Your task to perform on an android device: turn smart compose on in the gmail app Image 0: 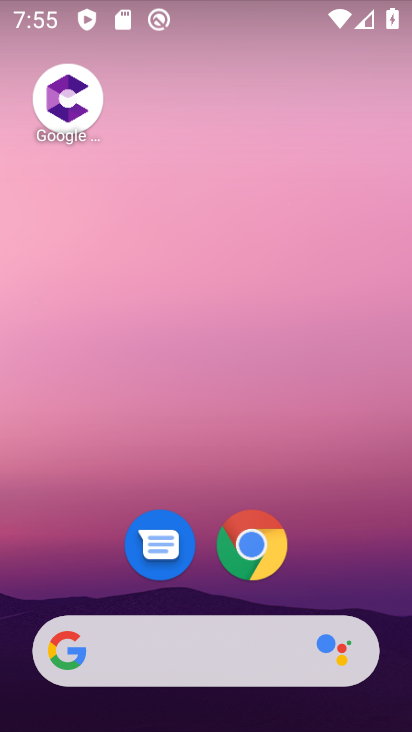
Step 0: drag from (324, 500) to (243, 84)
Your task to perform on an android device: turn smart compose on in the gmail app Image 1: 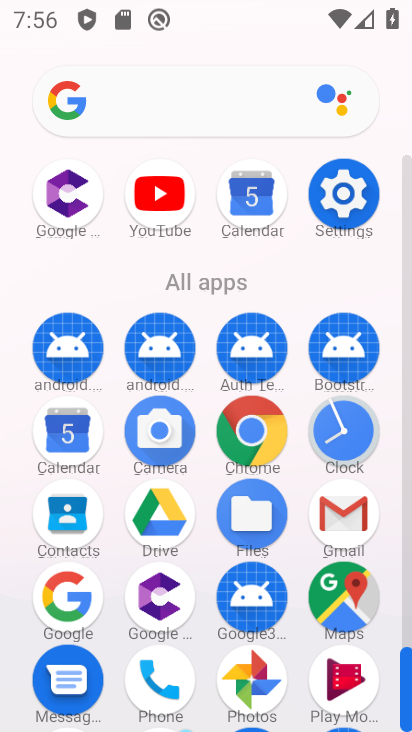
Step 1: drag from (291, 286) to (245, 95)
Your task to perform on an android device: turn smart compose on in the gmail app Image 2: 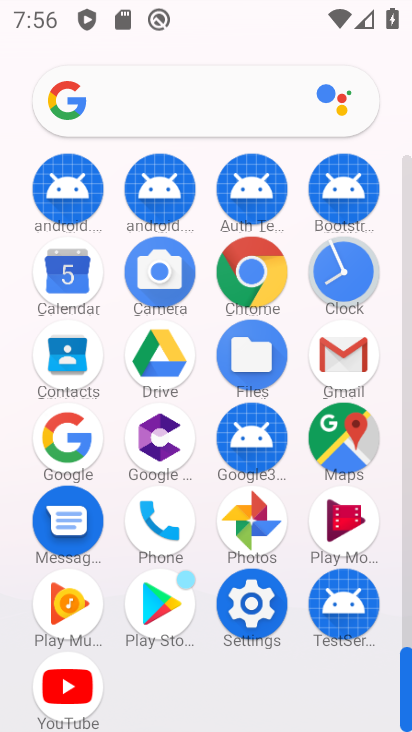
Step 2: click (345, 353)
Your task to perform on an android device: turn smart compose on in the gmail app Image 3: 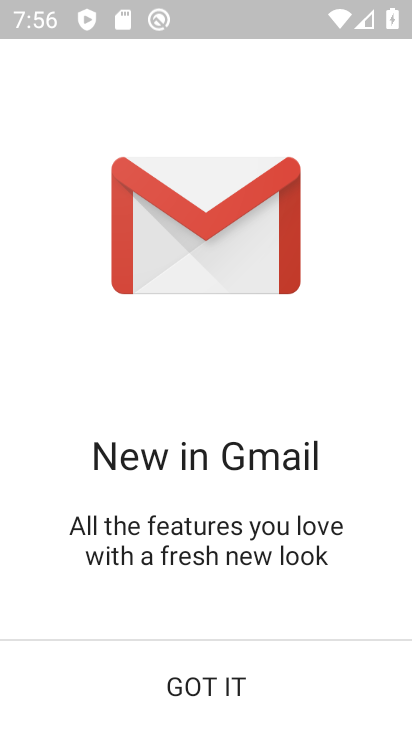
Step 3: click (217, 690)
Your task to perform on an android device: turn smart compose on in the gmail app Image 4: 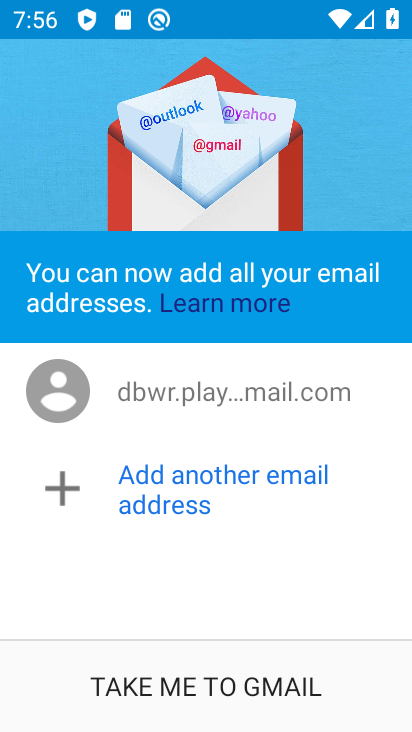
Step 4: click (234, 692)
Your task to perform on an android device: turn smart compose on in the gmail app Image 5: 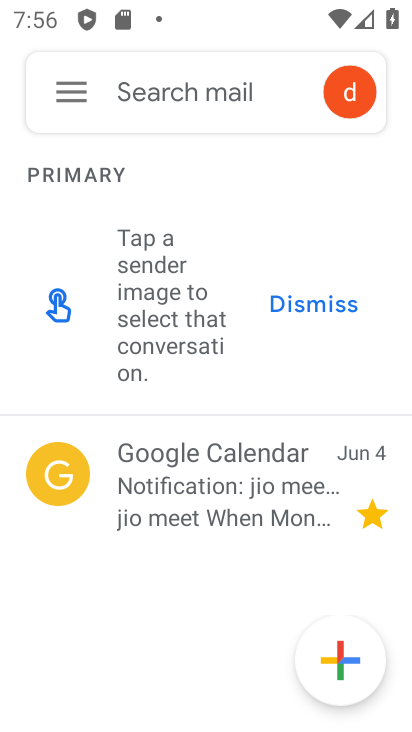
Step 5: click (79, 94)
Your task to perform on an android device: turn smart compose on in the gmail app Image 6: 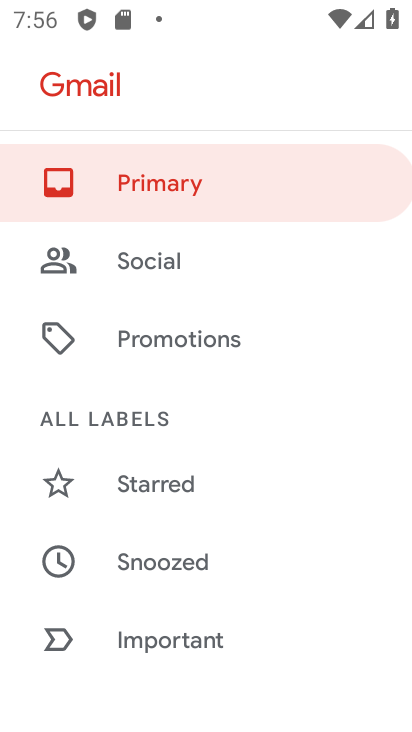
Step 6: drag from (181, 441) to (179, 286)
Your task to perform on an android device: turn smart compose on in the gmail app Image 7: 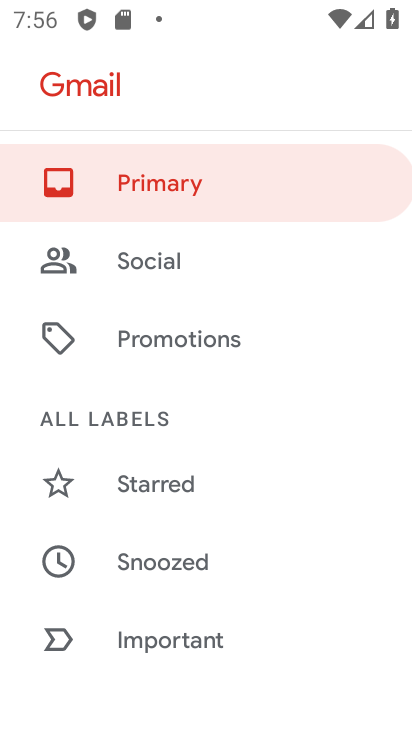
Step 7: drag from (198, 440) to (226, 329)
Your task to perform on an android device: turn smart compose on in the gmail app Image 8: 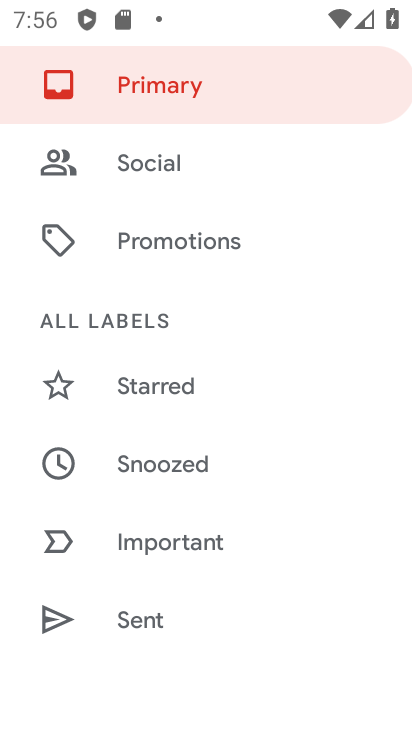
Step 8: drag from (177, 421) to (273, 311)
Your task to perform on an android device: turn smart compose on in the gmail app Image 9: 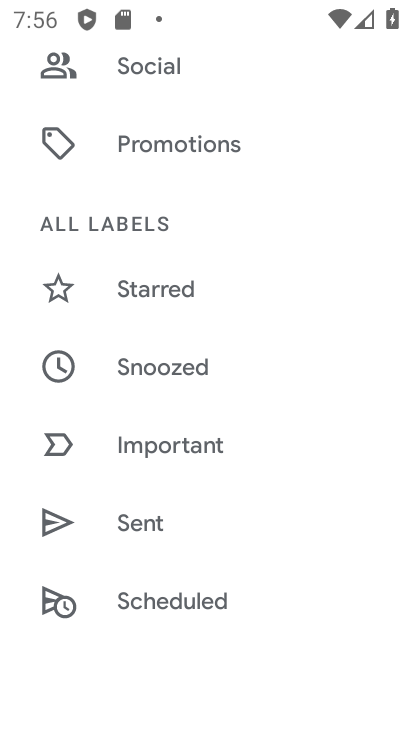
Step 9: drag from (173, 413) to (260, 320)
Your task to perform on an android device: turn smart compose on in the gmail app Image 10: 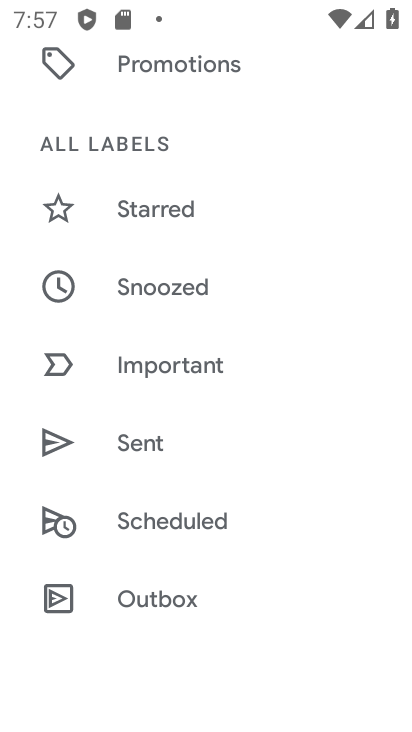
Step 10: drag from (164, 399) to (237, 304)
Your task to perform on an android device: turn smart compose on in the gmail app Image 11: 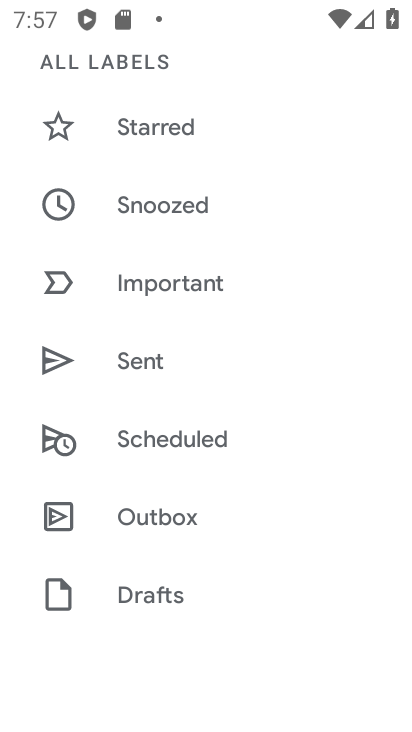
Step 11: drag from (160, 403) to (232, 310)
Your task to perform on an android device: turn smart compose on in the gmail app Image 12: 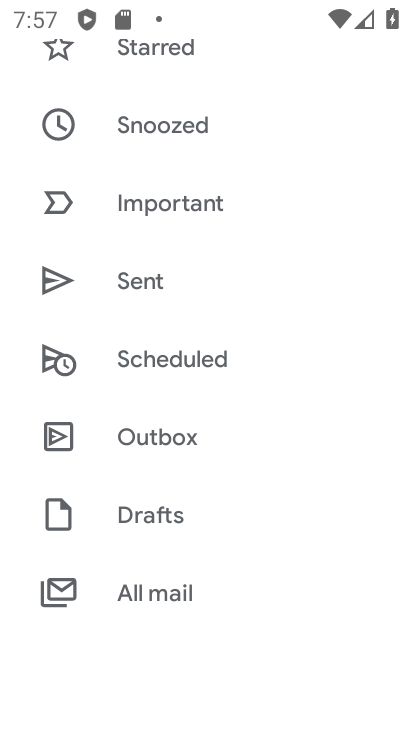
Step 12: drag from (168, 395) to (257, 296)
Your task to perform on an android device: turn smart compose on in the gmail app Image 13: 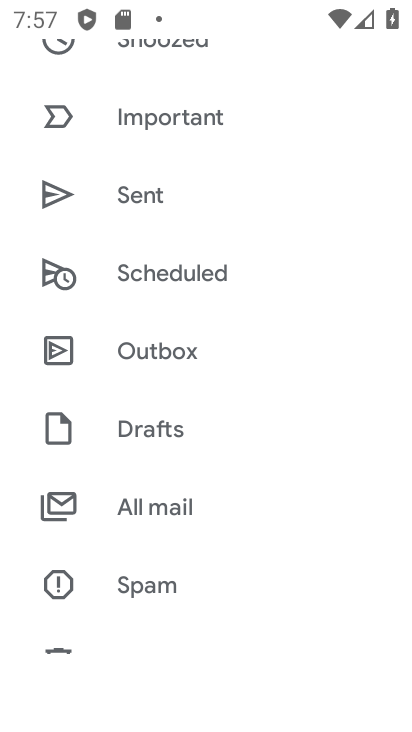
Step 13: drag from (170, 388) to (245, 291)
Your task to perform on an android device: turn smart compose on in the gmail app Image 14: 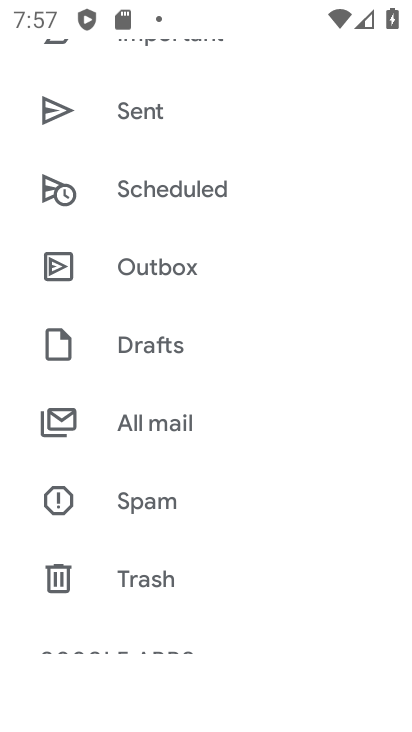
Step 14: drag from (170, 375) to (220, 291)
Your task to perform on an android device: turn smart compose on in the gmail app Image 15: 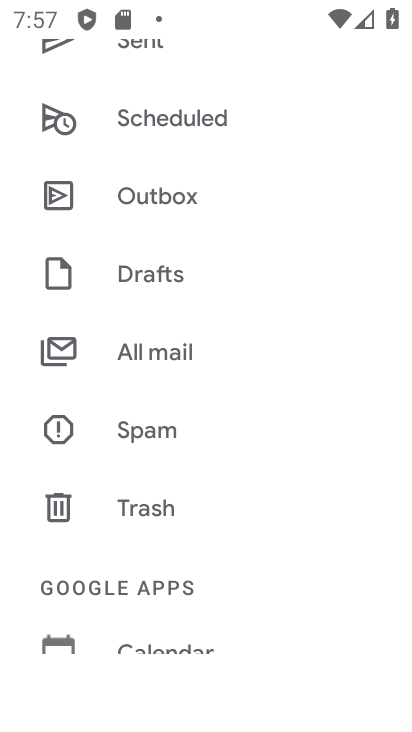
Step 15: drag from (169, 473) to (227, 350)
Your task to perform on an android device: turn smart compose on in the gmail app Image 16: 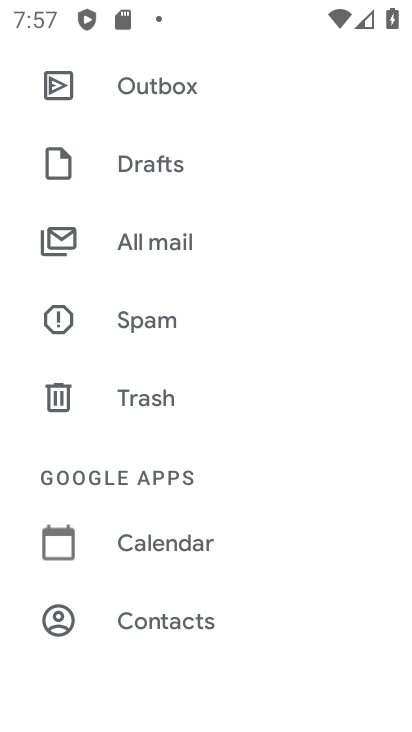
Step 16: drag from (190, 503) to (256, 347)
Your task to perform on an android device: turn smart compose on in the gmail app Image 17: 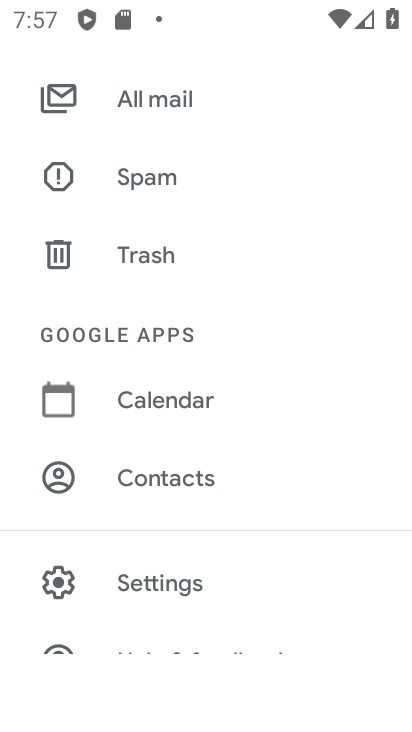
Step 17: drag from (166, 545) to (256, 349)
Your task to perform on an android device: turn smart compose on in the gmail app Image 18: 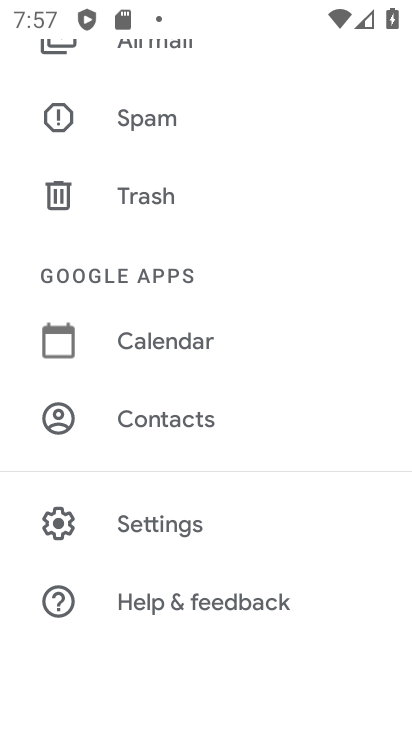
Step 18: click (173, 512)
Your task to perform on an android device: turn smart compose on in the gmail app Image 19: 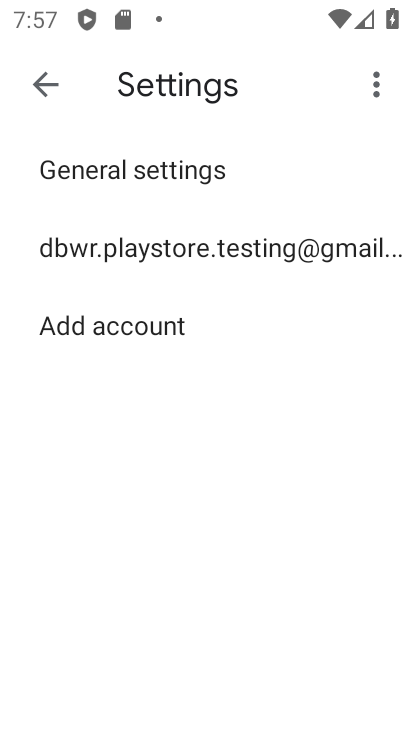
Step 19: click (191, 243)
Your task to perform on an android device: turn smart compose on in the gmail app Image 20: 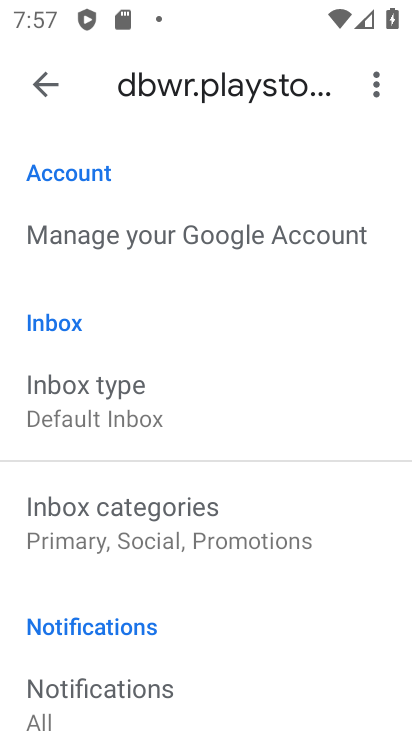
Step 20: task complete